Your task to perform on an android device: change the clock display to show seconds Image 0: 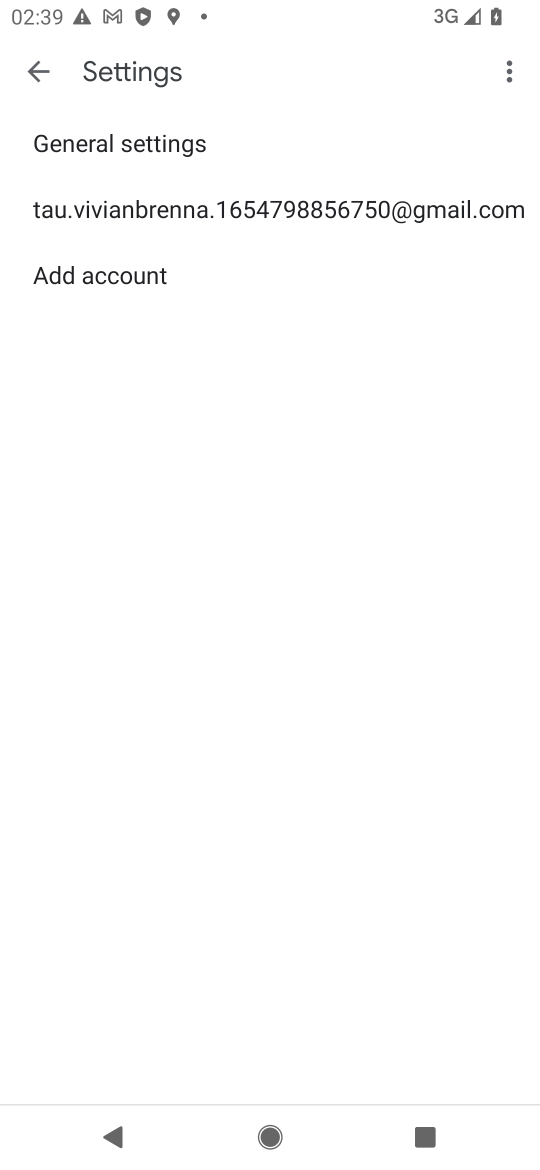
Step 0: press home button
Your task to perform on an android device: change the clock display to show seconds Image 1: 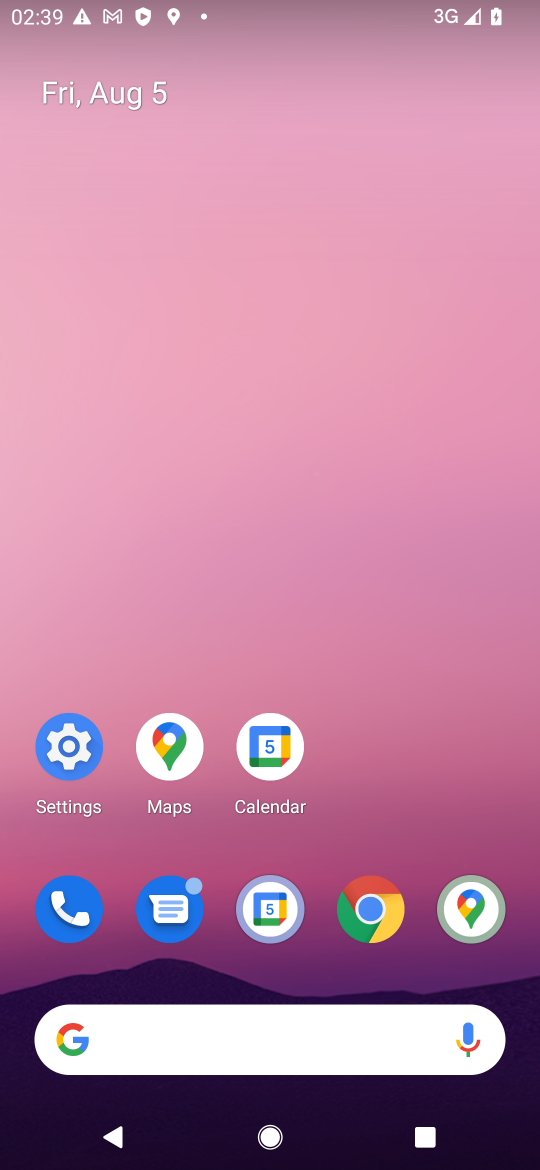
Step 1: drag from (405, 801) to (329, 5)
Your task to perform on an android device: change the clock display to show seconds Image 2: 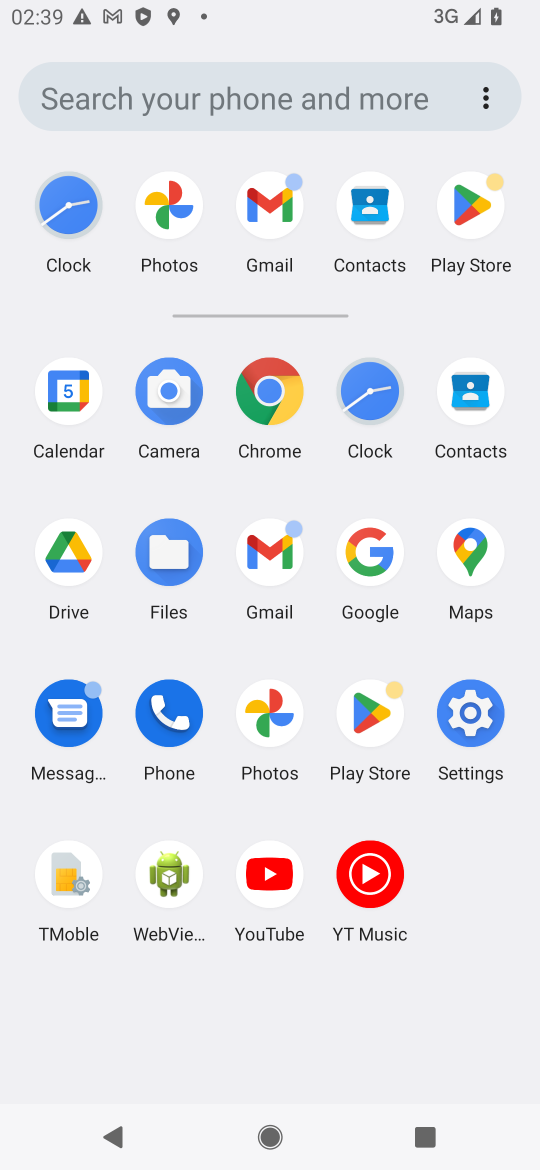
Step 2: click (370, 391)
Your task to perform on an android device: change the clock display to show seconds Image 3: 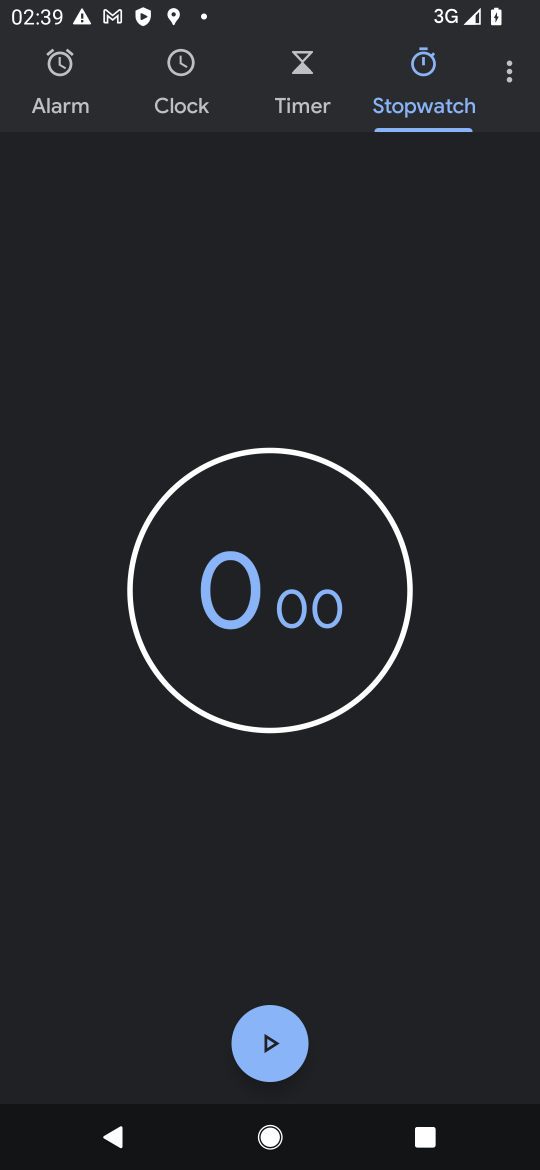
Step 3: click (508, 74)
Your task to perform on an android device: change the clock display to show seconds Image 4: 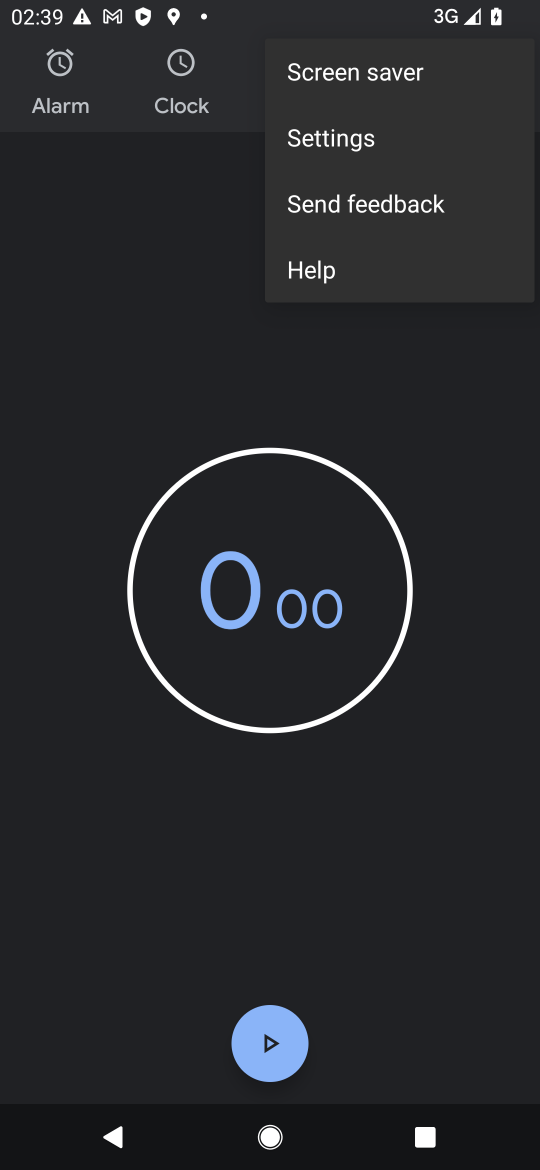
Step 4: click (332, 144)
Your task to perform on an android device: change the clock display to show seconds Image 5: 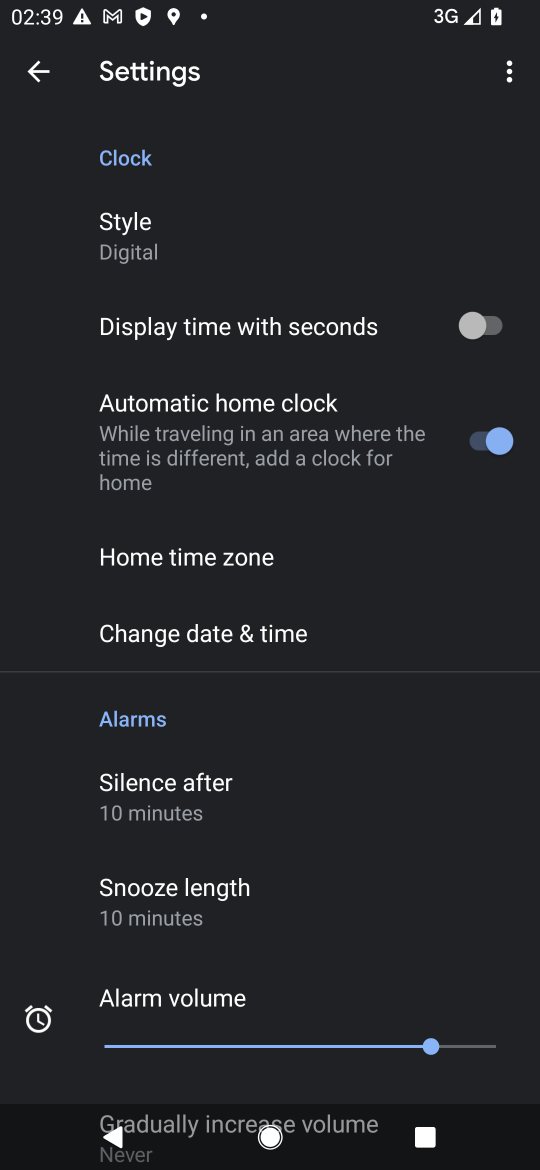
Step 5: click (464, 318)
Your task to perform on an android device: change the clock display to show seconds Image 6: 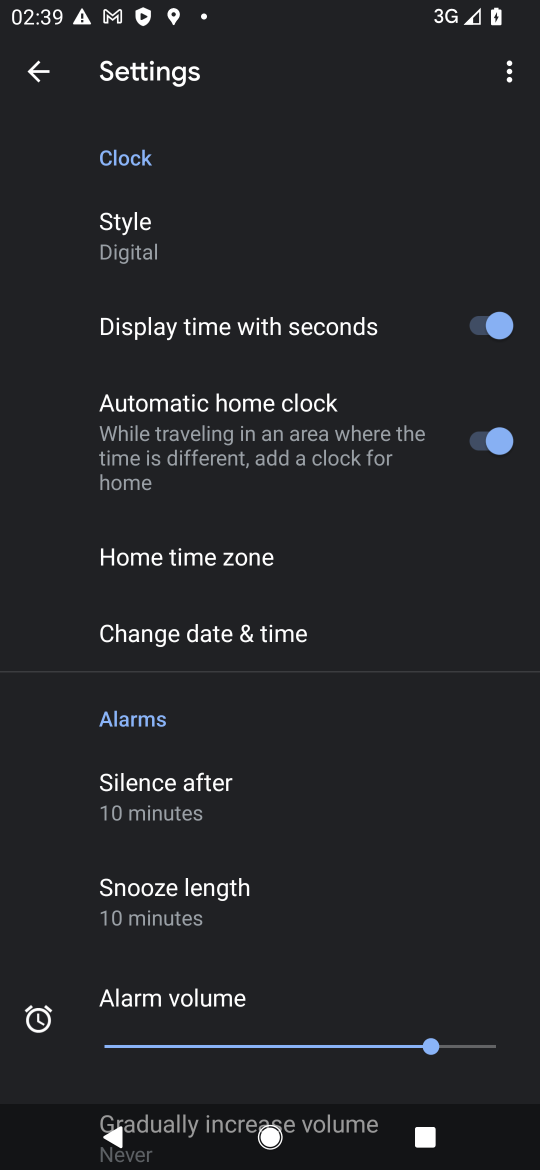
Step 6: task complete